Your task to perform on an android device: Open Google Chrome and open the bookmarks view Image 0: 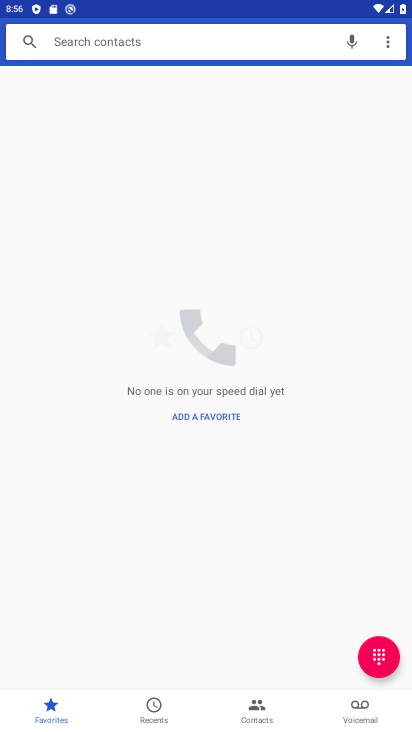
Step 0: press home button
Your task to perform on an android device: Open Google Chrome and open the bookmarks view Image 1: 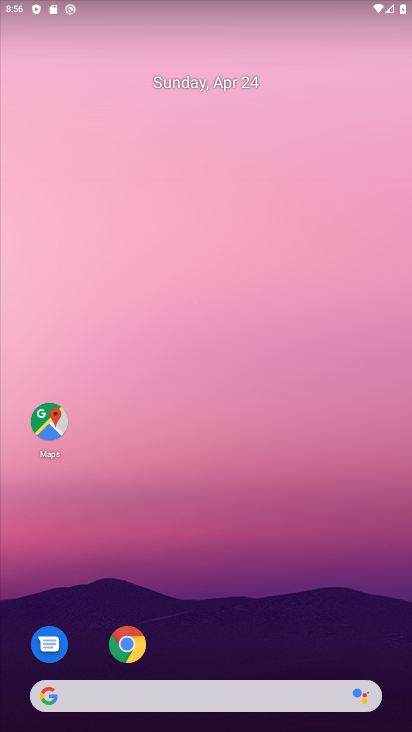
Step 1: drag from (207, 673) to (294, 16)
Your task to perform on an android device: Open Google Chrome and open the bookmarks view Image 2: 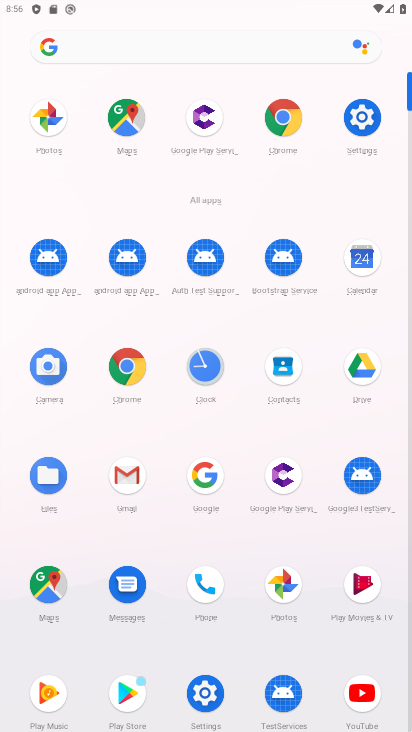
Step 2: click (279, 120)
Your task to perform on an android device: Open Google Chrome and open the bookmarks view Image 3: 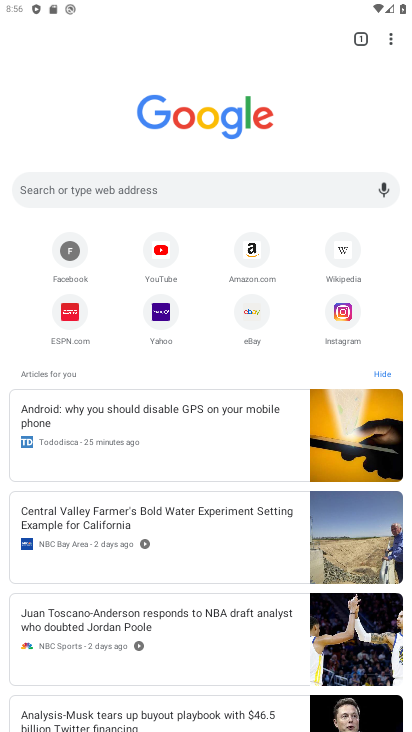
Step 3: task complete